Your task to perform on an android device: Open maps Image 0: 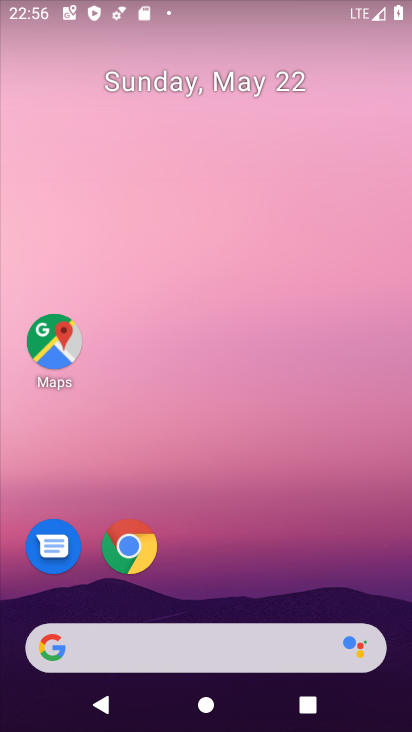
Step 0: click (199, 175)
Your task to perform on an android device: Open maps Image 1: 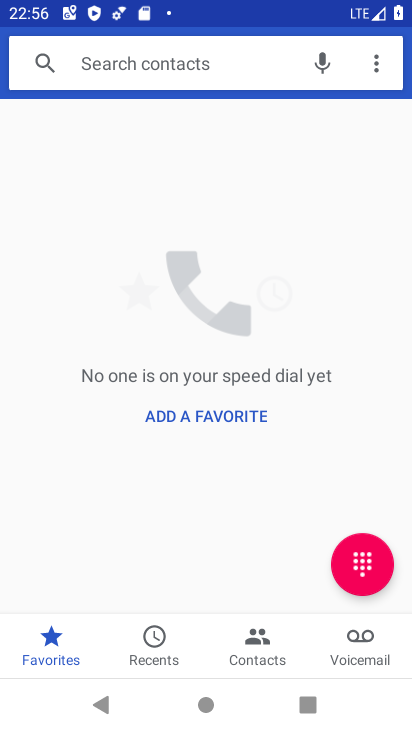
Step 1: drag from (236, 593) to (240, 194)
Your task to perform on an android device: Open maps Image 2: 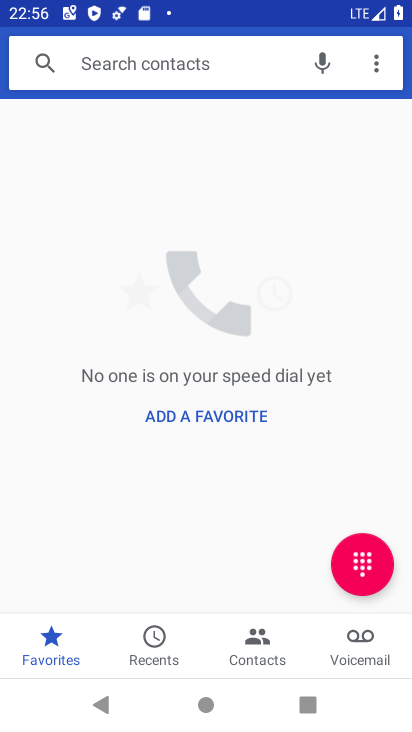
Step 2: drag from (204, 527) to (188, 224)
Your task to perform on an android device: Open maps Image 3: 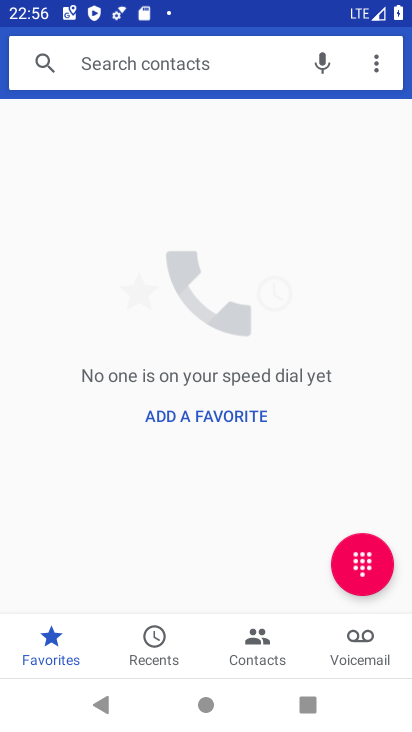
Step 3: press home button
Your task to perform on an android device: Open maps Image 4: 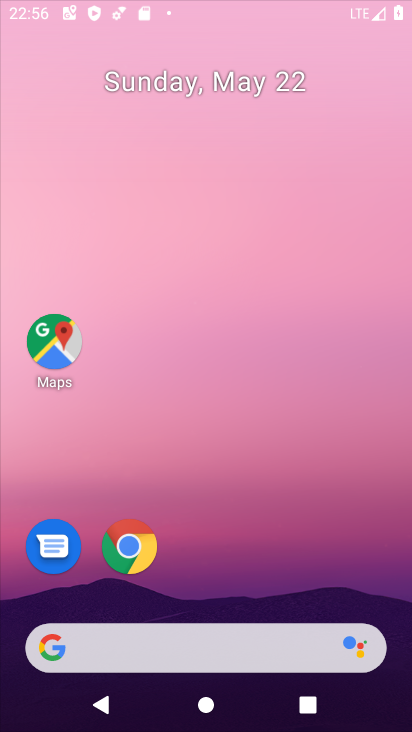
Step 4: drag from (172, 612) to (231, 148)
Your task to perform on an android device: Open maps Image 5: 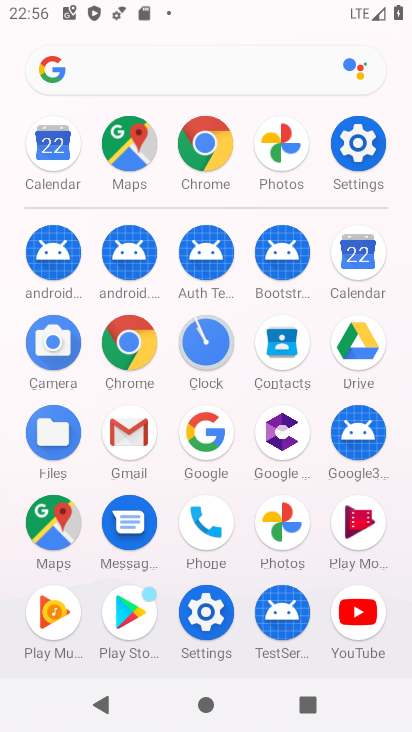
Step 5: click (48, 526)
Your task to perform on an android device: Open maps Image 6: 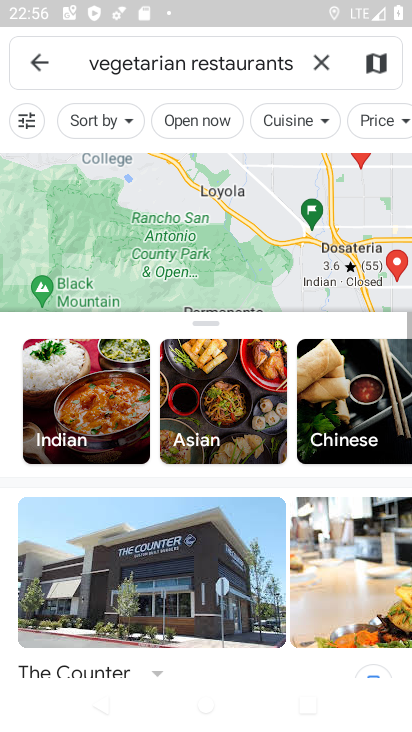
Step 6: task complete